Your task to perform on an android device: change the clock style Image 0: 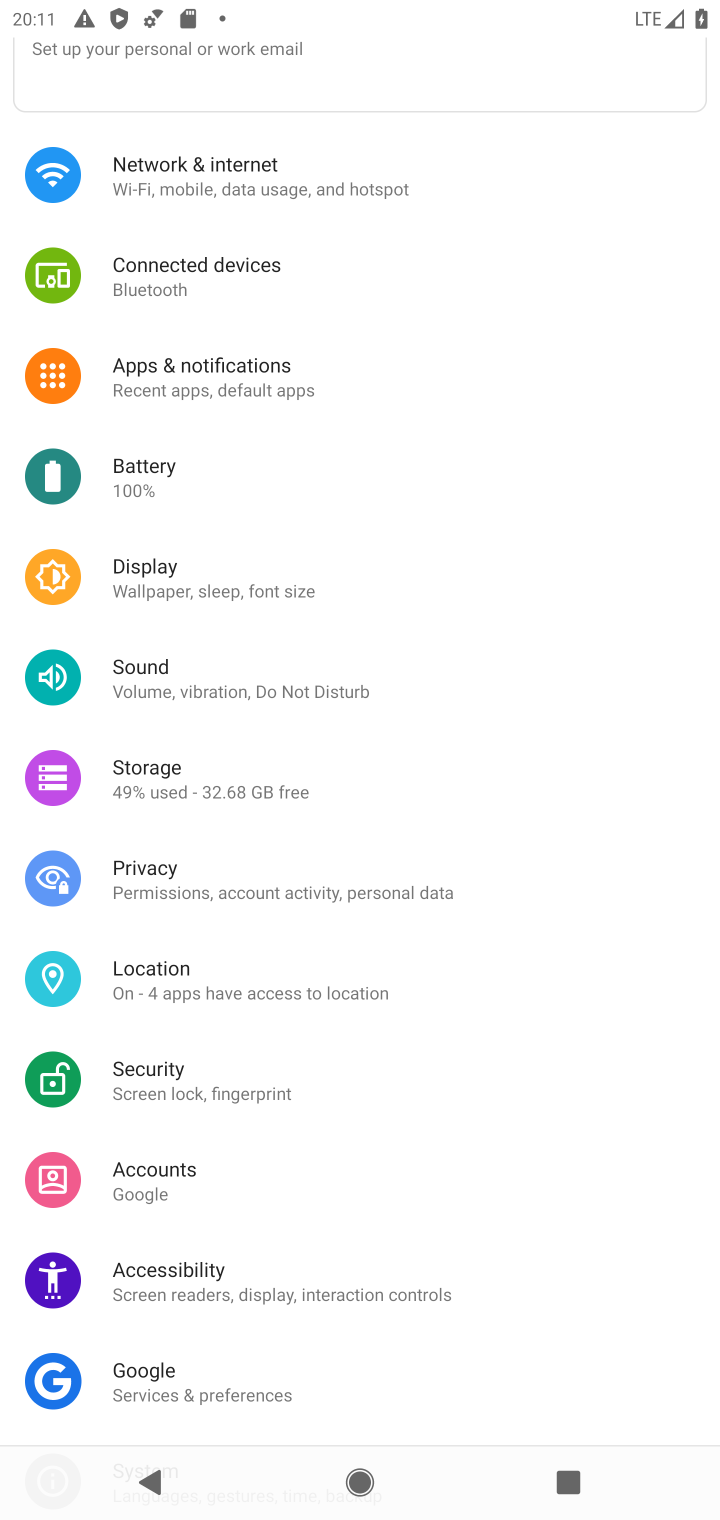
Step 0: press home button
Your task to perform on an android device: change the clock style Image 1: 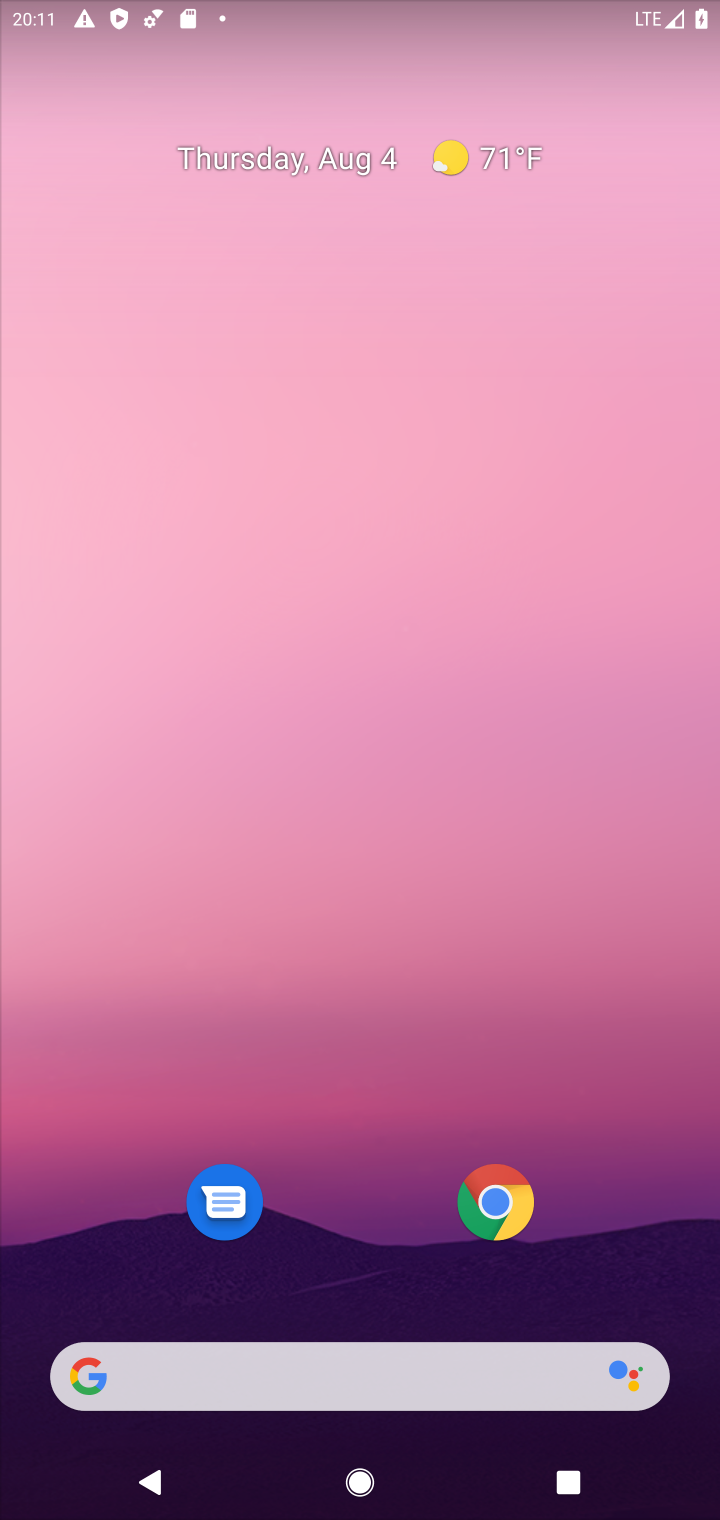
Step 1: drag from (356, 1053) to (356, 433)
Your task to perform on an android device: change the clock style Image 2: 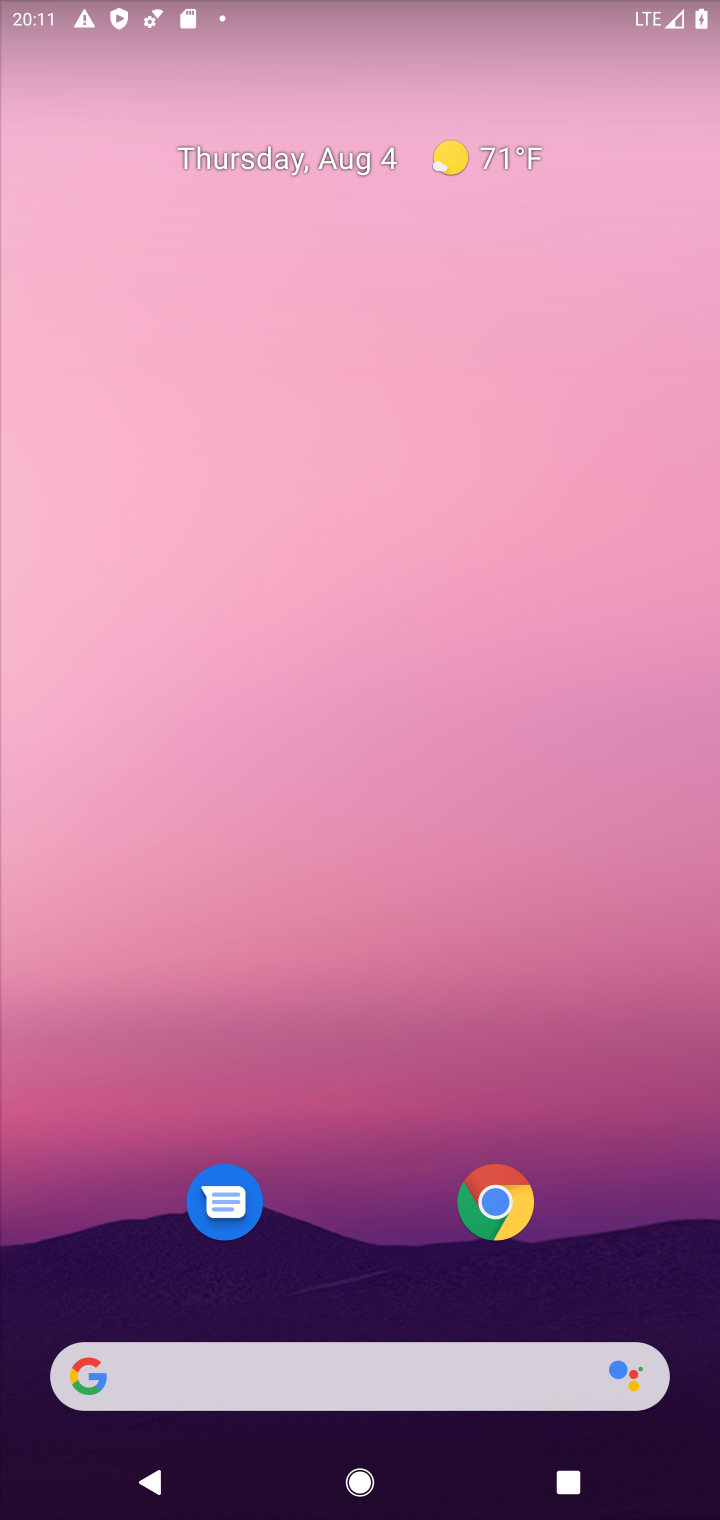
Step 2: drag from (359, 1076) to (402, 128)
Your task to perform on an android device: change the clock style Image 3: 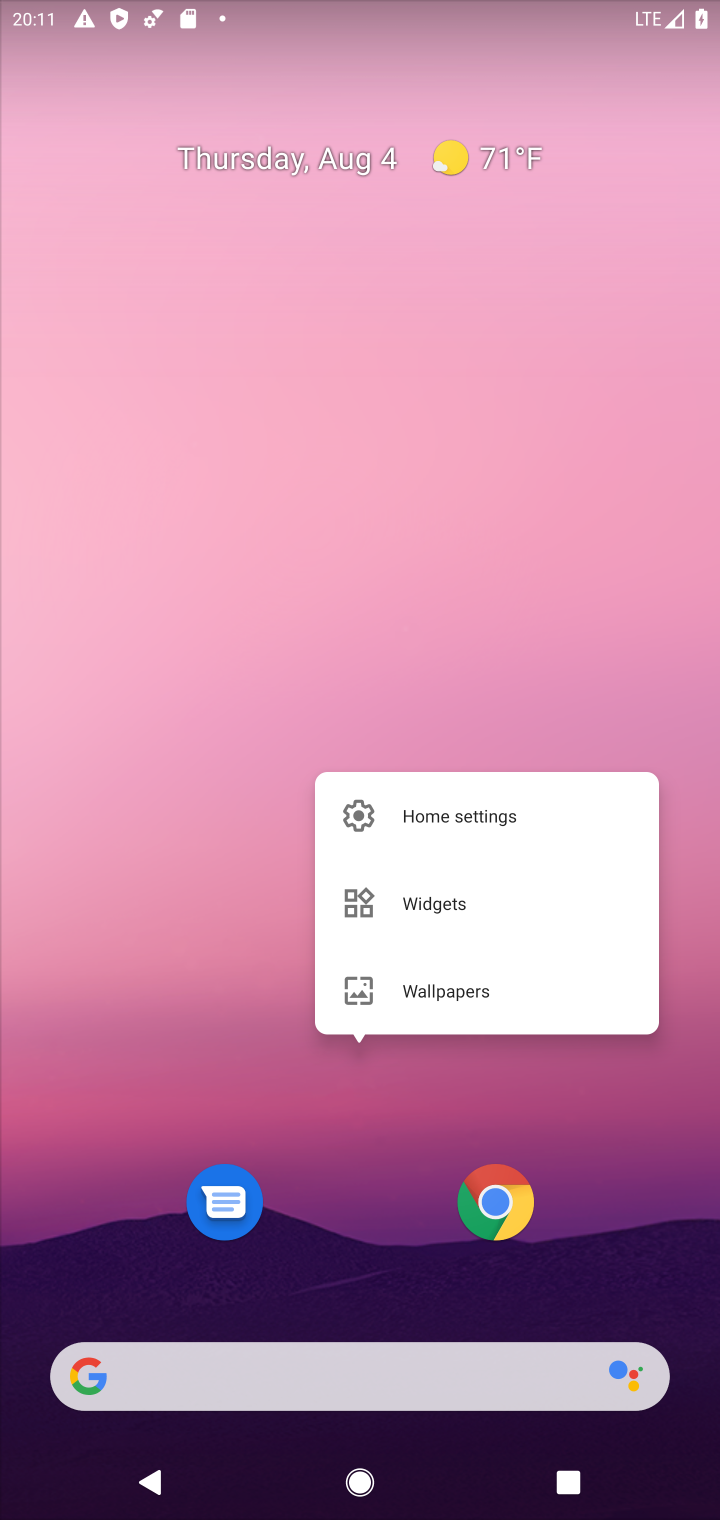
Step 3: click (321, 1141)
Your task to perform on an android device: change the clock style Image 4: 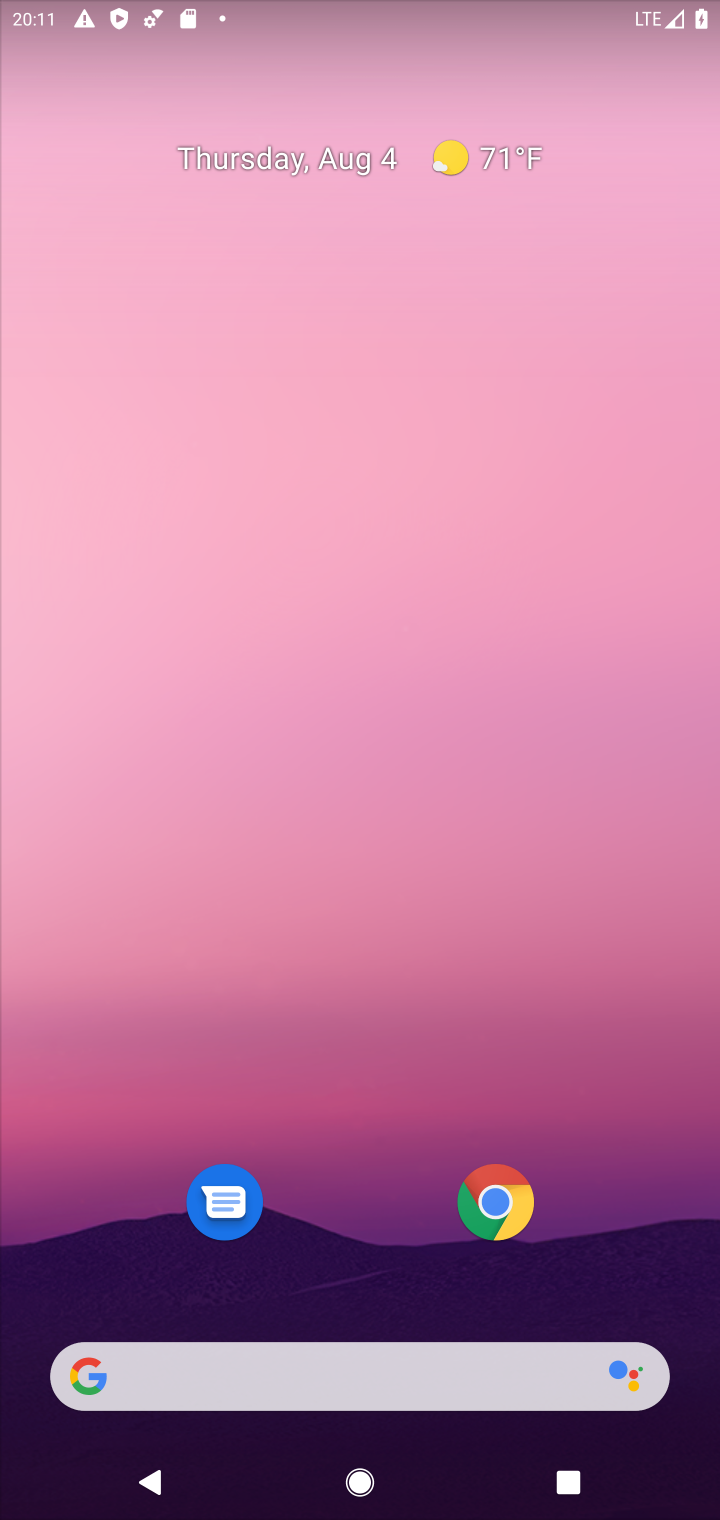
Step 4: drag from (333, 1255) to (347, 320)
Your task to perform on an android device: change the clock style Image 5: 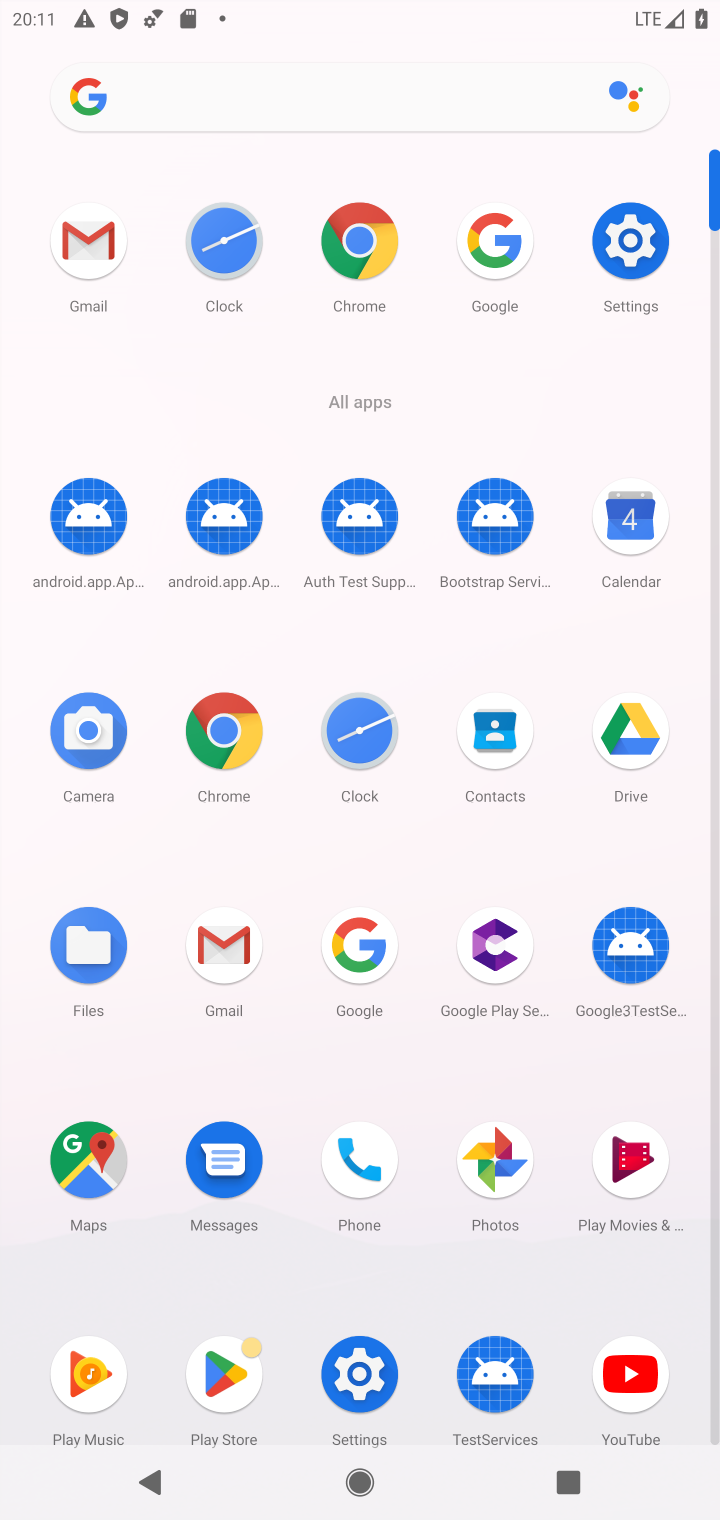
Step 5: click (226, 249)
Your task to perform on an android device: change the clock style Image 6: 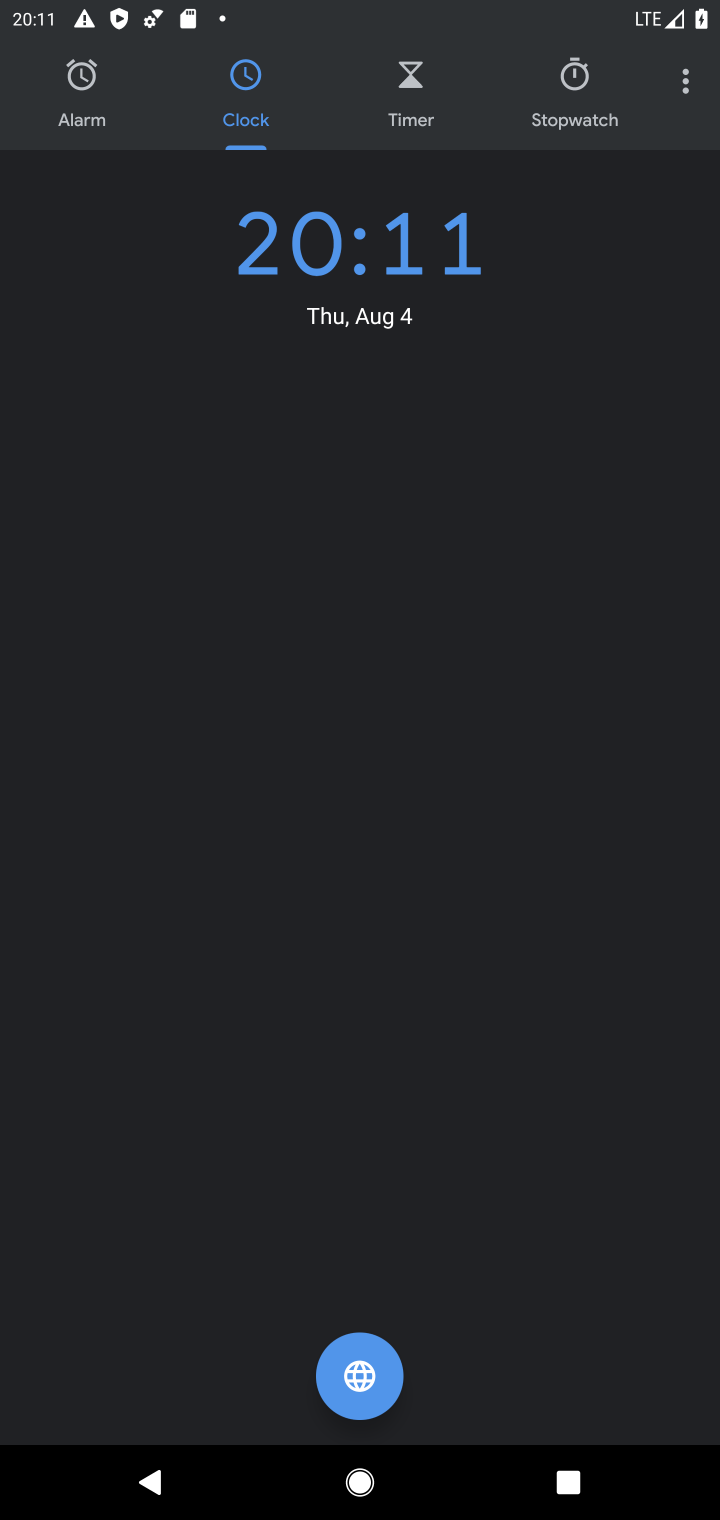
Step 6: click (694, 78)
Your task to perform on an android device: change the clock style Image 7: 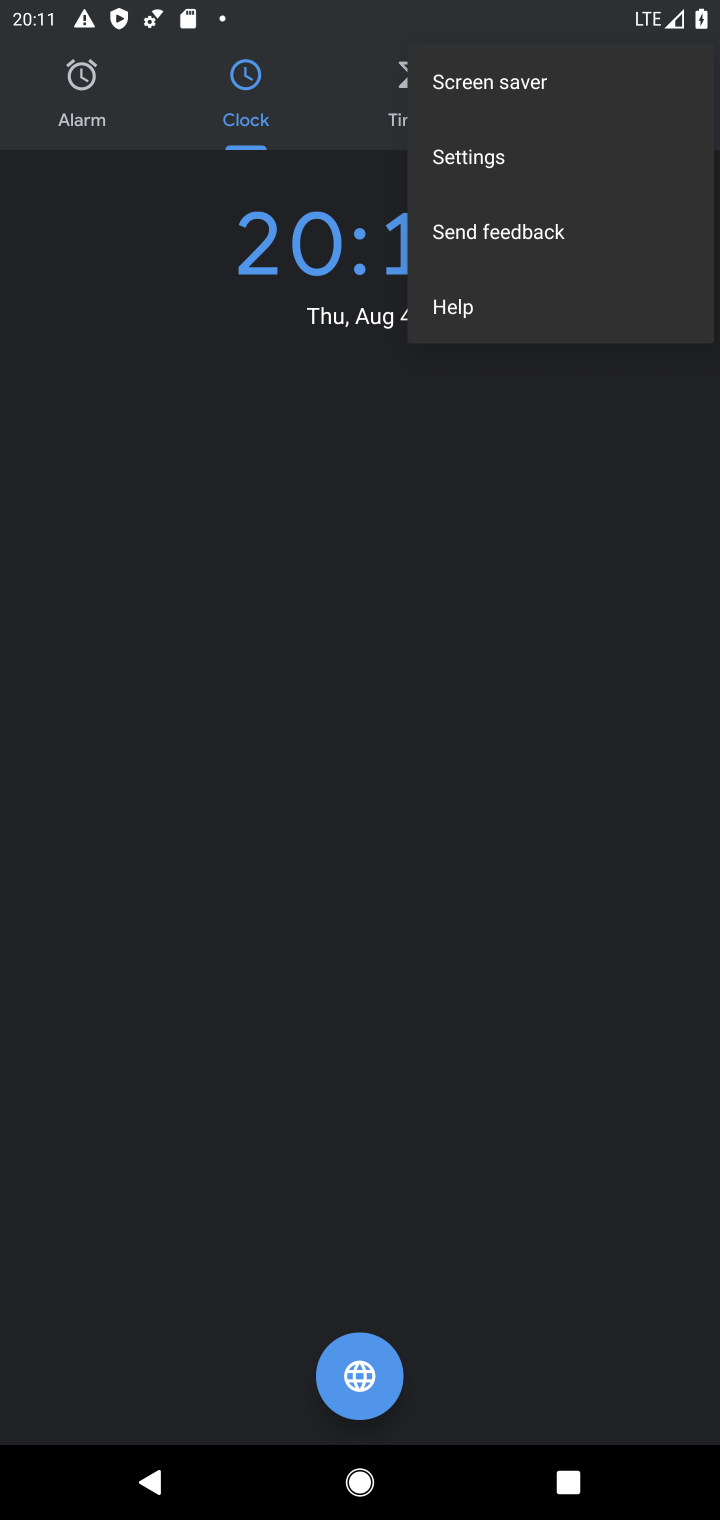
Step 7: click (565, 153)
Your task to perform on an android device: change the clock style Image 8: 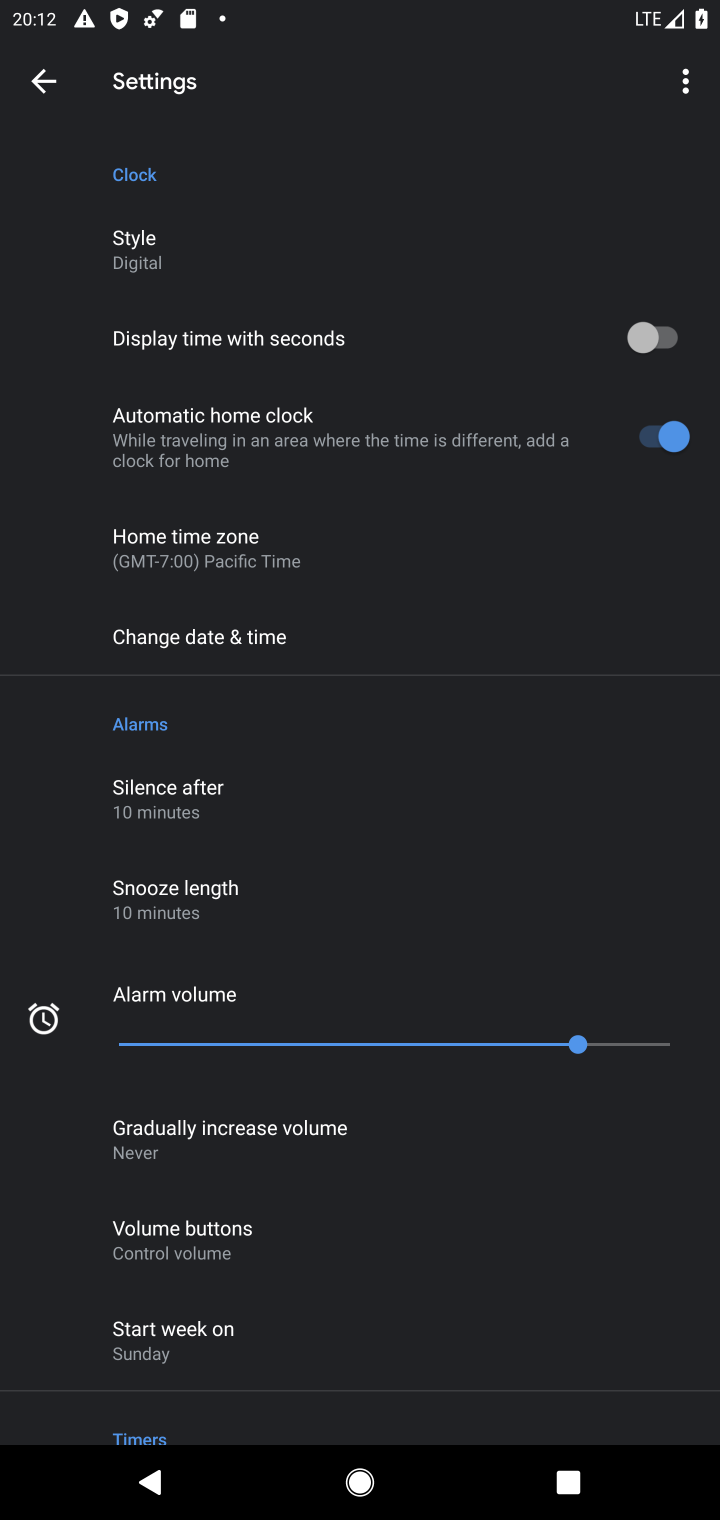
Step 8: click (195, 238)
Your task to perform on an android device: change the clock style Image 9: 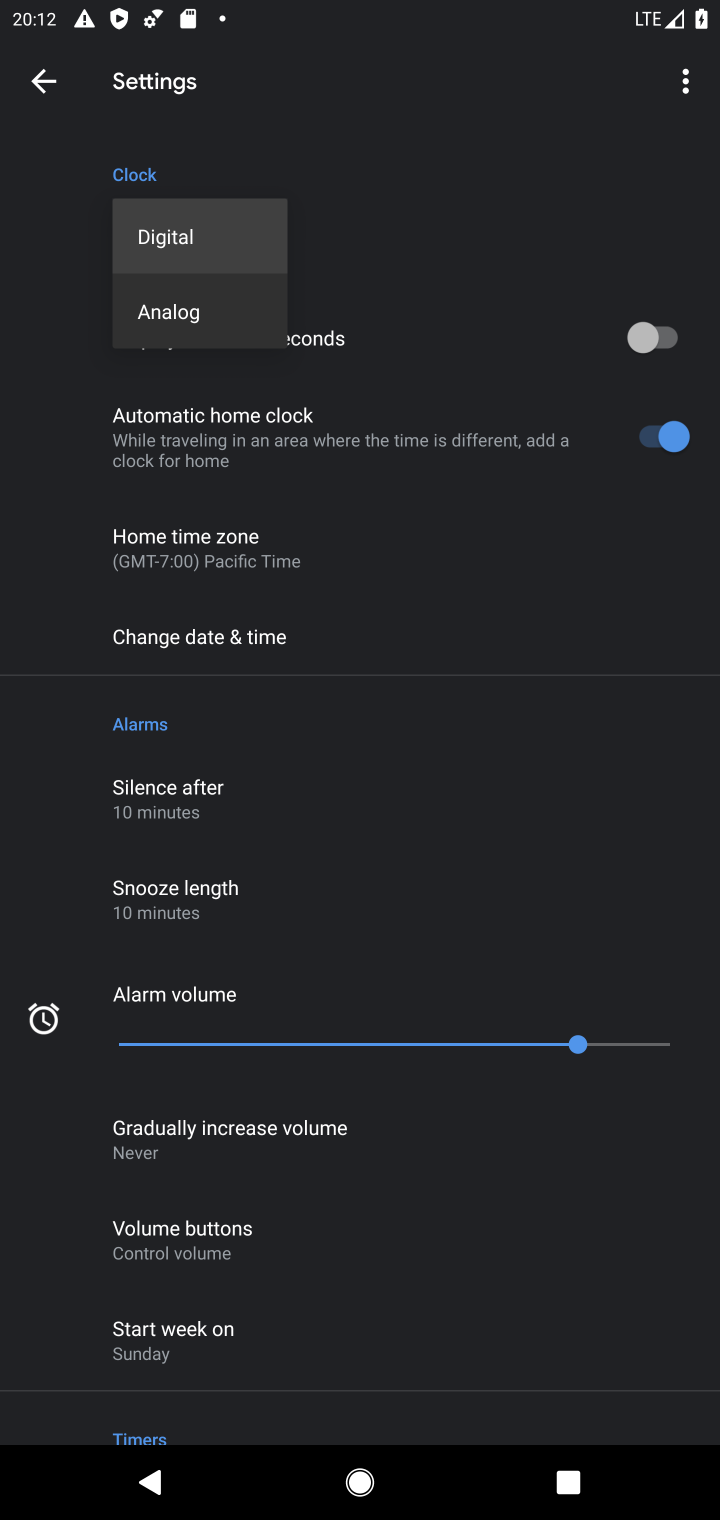
Step 9: click (190, 302)
Your task to perform on an android device: change the clock style Image 10: 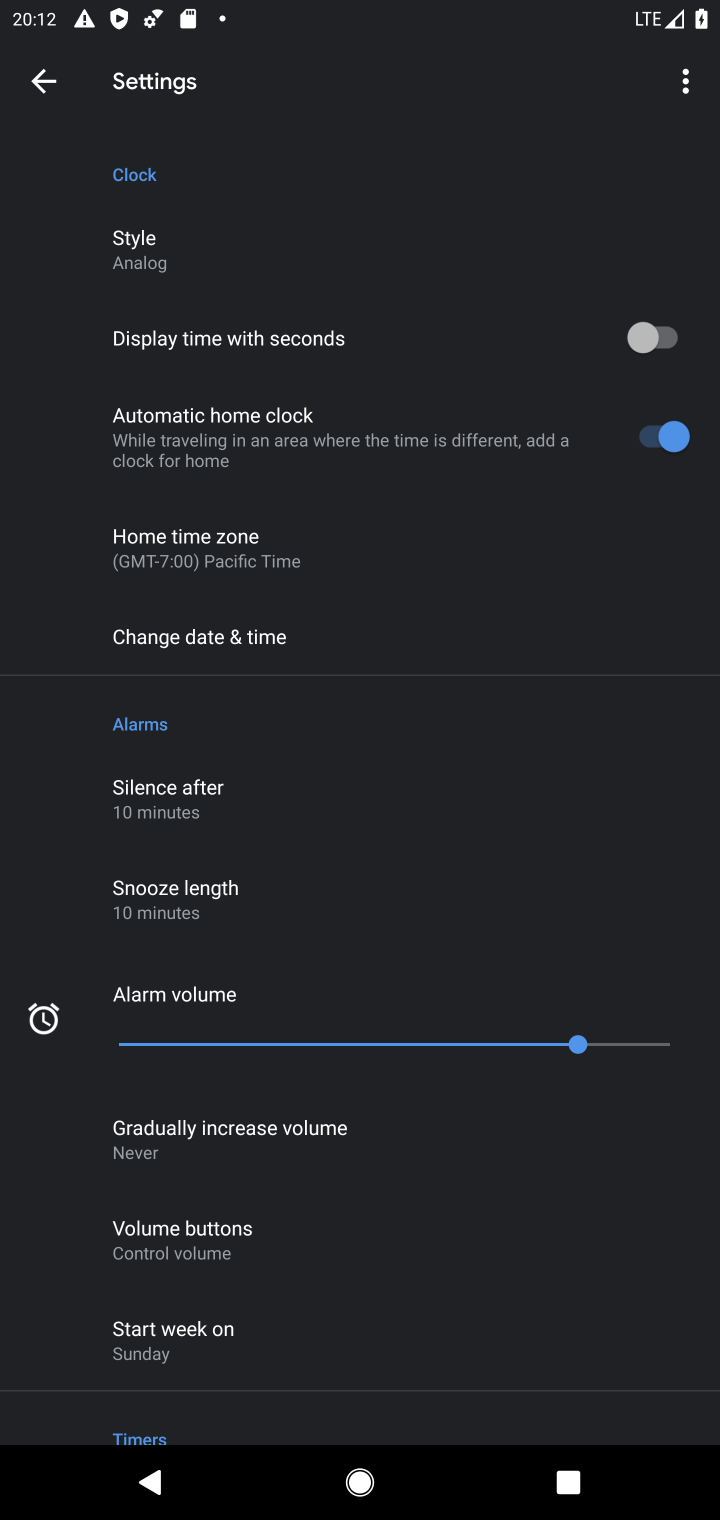
Step 10: task complete